Your task to perform on an android device: find snoozed emails in the gmail app Image 0: 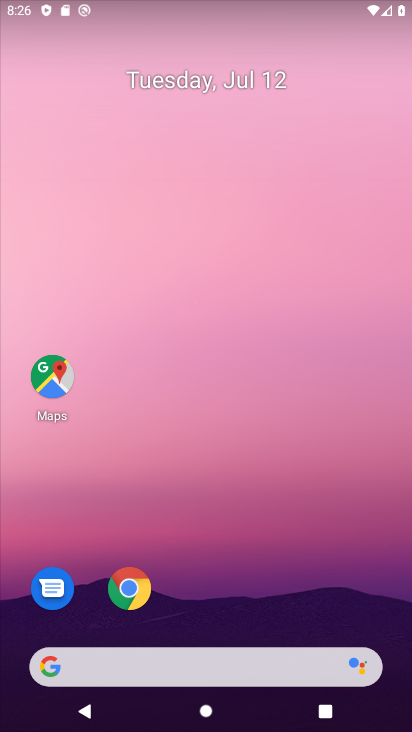
Step 0: drag from (187, 651) to (274, 51)
Your task to perform on an android device: find snoozed emails in the gmail app Image 1: 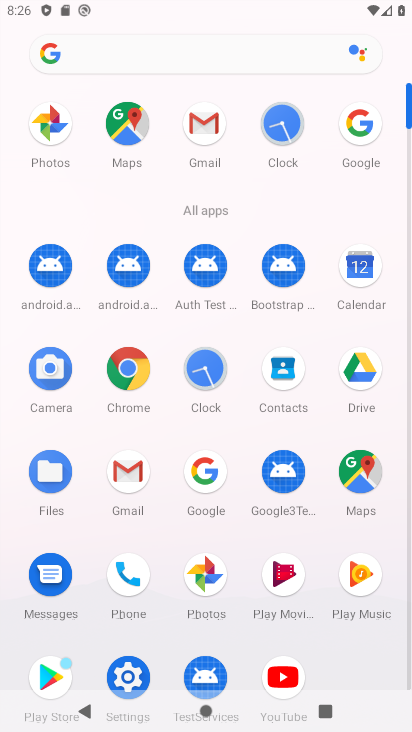
Step 1: click (127, 458)
Your task to perform on an android device: find snoozed emails in the gmail app Image 2: 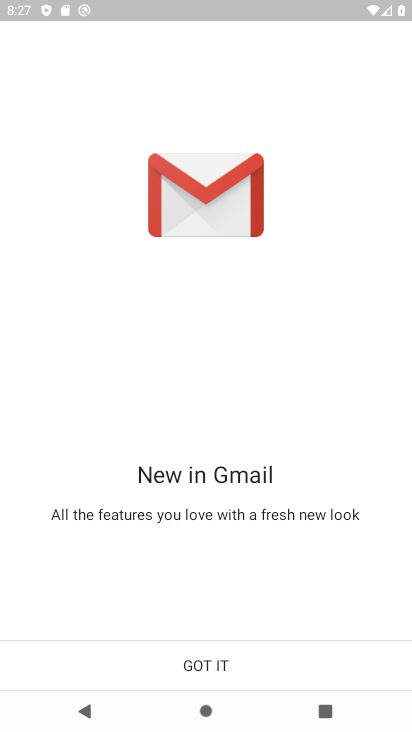
Step 2: click (209, 663)
Your task to perform on an android device: find snoozed emails in the gmail app Image 3: 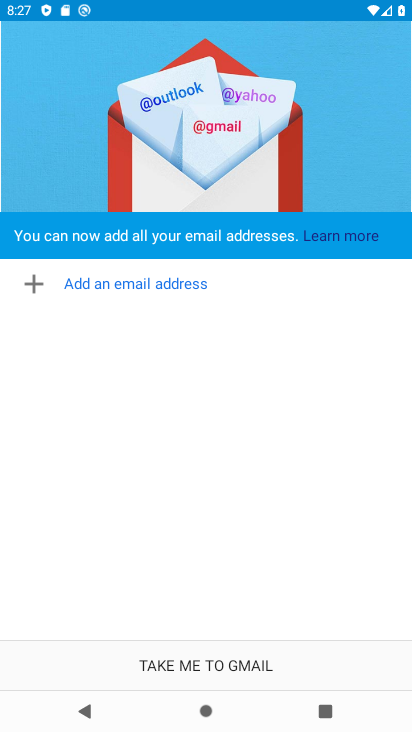
Step 3: click (209, 669)
Your task to perform on an android device: find snoozed emails in the gmail app Image 4: 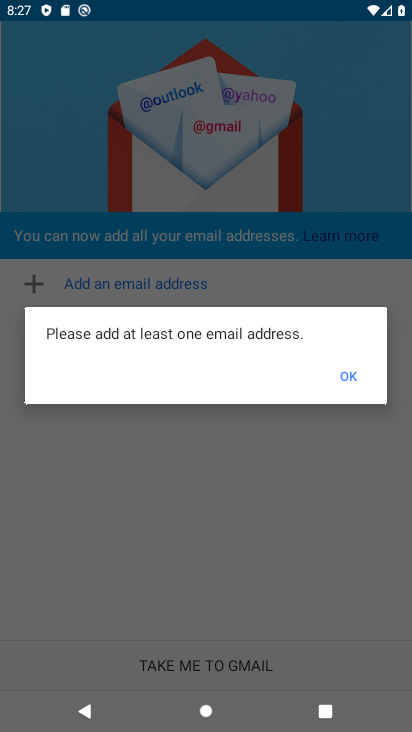
Step 4: task complete